Your task to perform on an android device: See recent photos Image 0: 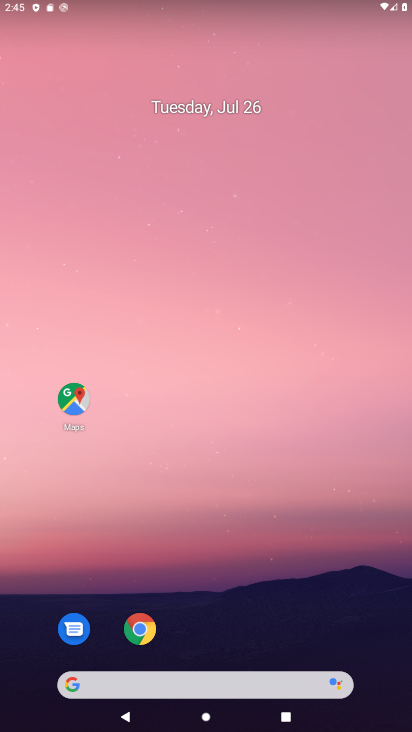
Step 0: drag from (211, 638) to (273, 114)
Your task to perform on an android device: See recent photos Image 1: 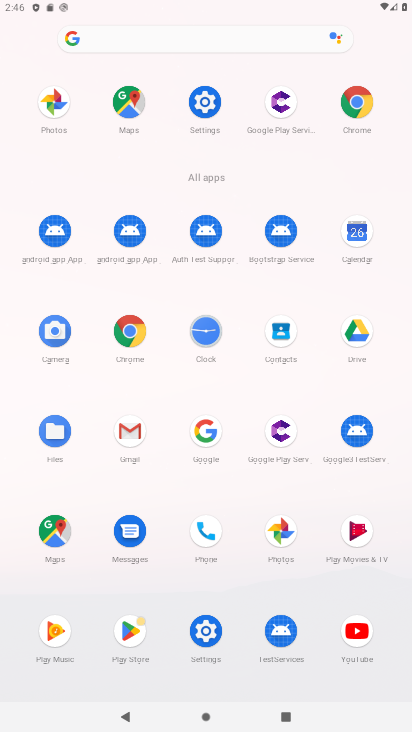
Step 1: click (288, 524)
Your task to perform on an android device: See recent photos Image 2: 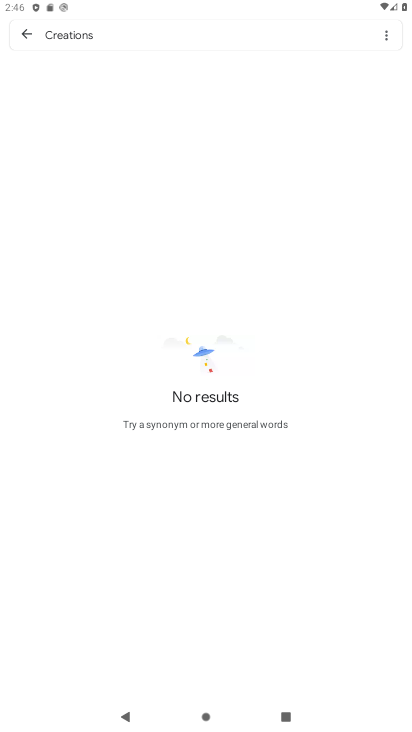
Step 2: click (22, 34)
Your task to perform on an android device: See recent photos Image 3: 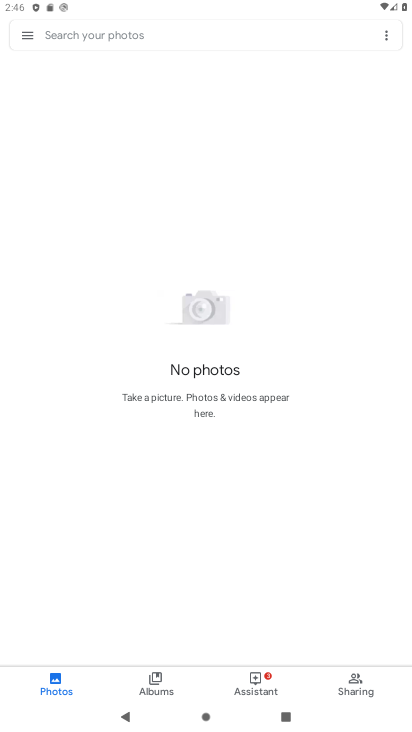
Step 3: task complete